Your task to perform on an android device: turn off notifications in google photos Image 0: 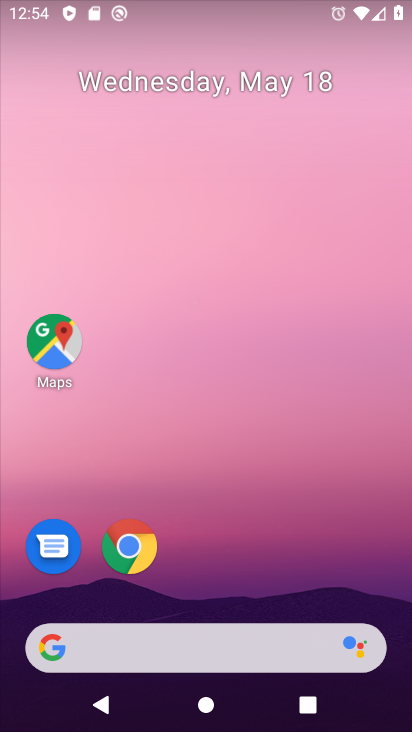
Step 0: drag from (154, 631) to (207, 101)
Your task to perform on an android device: turn off notifications in google photos Image 1: 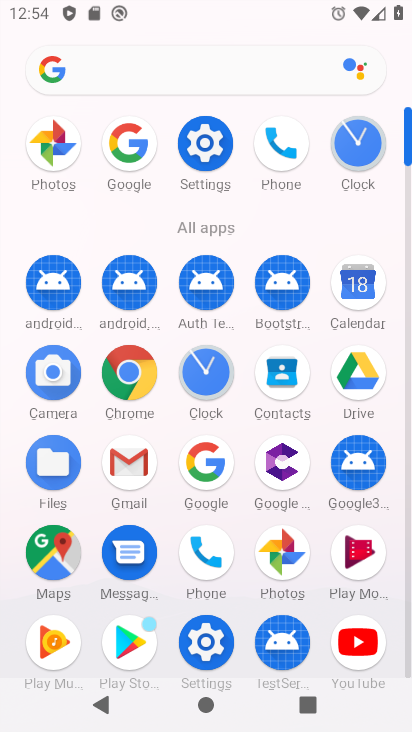
Step 1: click (297, 574)
Your task to perform on an android device: turn off notifications in google photos Image 2: 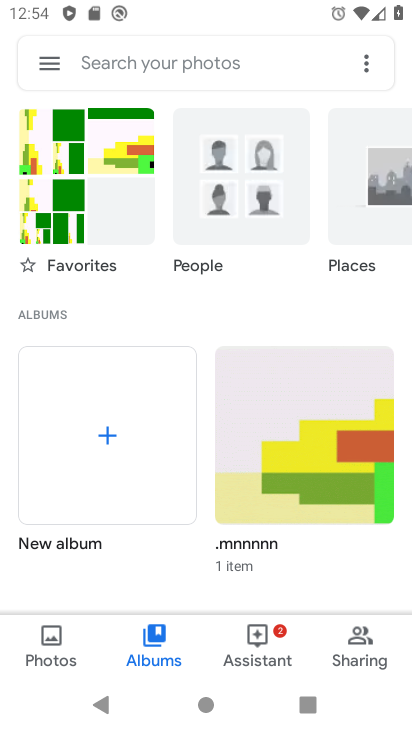
Step 2: click (42, 59)
Your task to perform on an android device: turn off notifications in google photos Image 3: 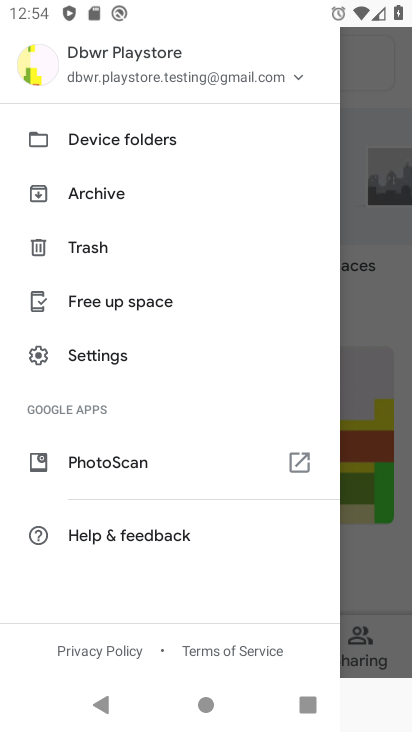
Step 3: click (101, 356)
Your task to perform on an android device: turn off notifications in google photos Image 4: 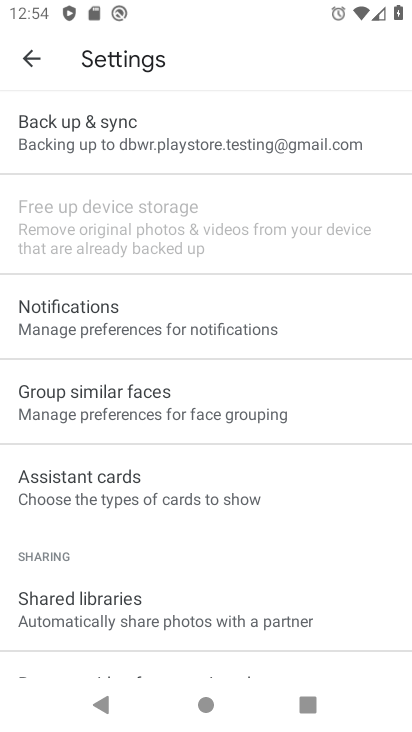
Step 4: click (150, 317)
Your task to perform on an android device: turn off notifications in google photos Image 5: 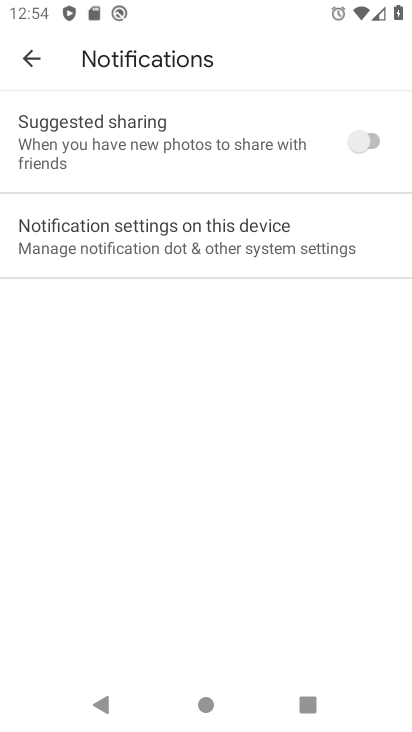
Step 5: click (141, 242)
Your task to perform on an android device: turn off notifications in google photos Image 6: 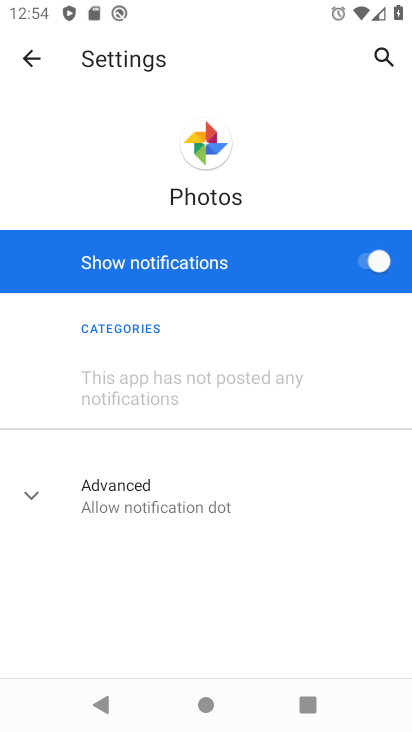
Step 6: click (350, 268)
Your task to perform on an android device: turn off notifications in google photos Image 7: 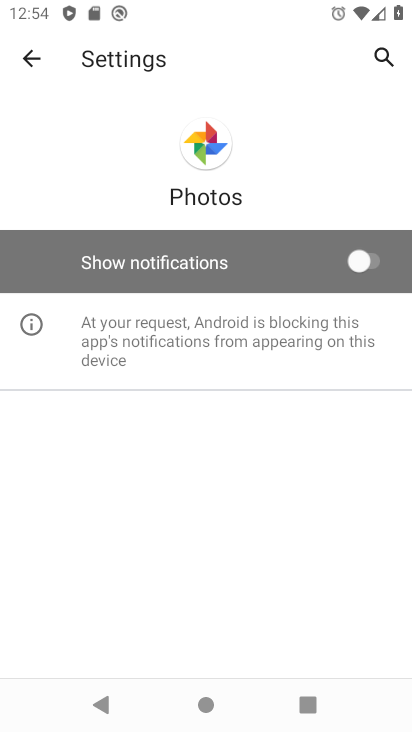
Step 7: task complete